Your task to perform on an android device: delete a single message in the gmail app Image 0: 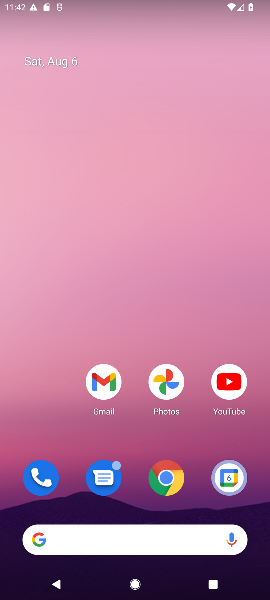
Step 0: drag from (158, 527) to (140, 97)
Your task to perform on an android device: delete a single message in the gmail app Image 1: 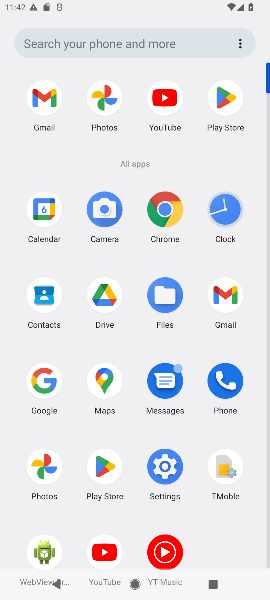
Step 1: click (226, 298)
Your task to perform on an android device: delete a single message in the gmail app Image 2: 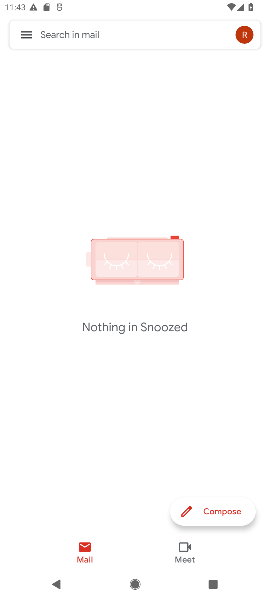
Step 2: click (31, 34)
Your task to perform on an android device: delete a single message in the gmail app Image 3: 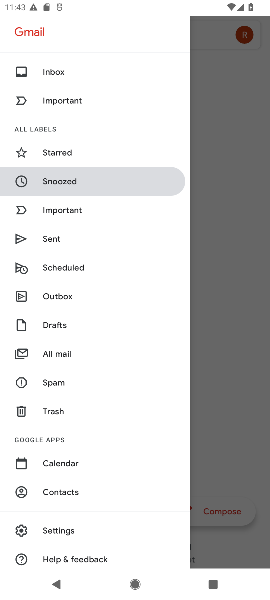
Step 3: click (54, 73)
Your task to perform on an android device: delete a single message in the gmail app Image 4: 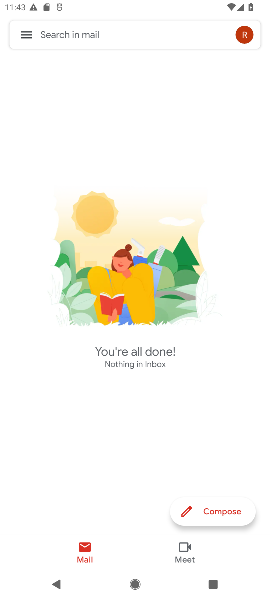
Step 4: task complete